Your task to perform on an android device: delete location history Image 0: 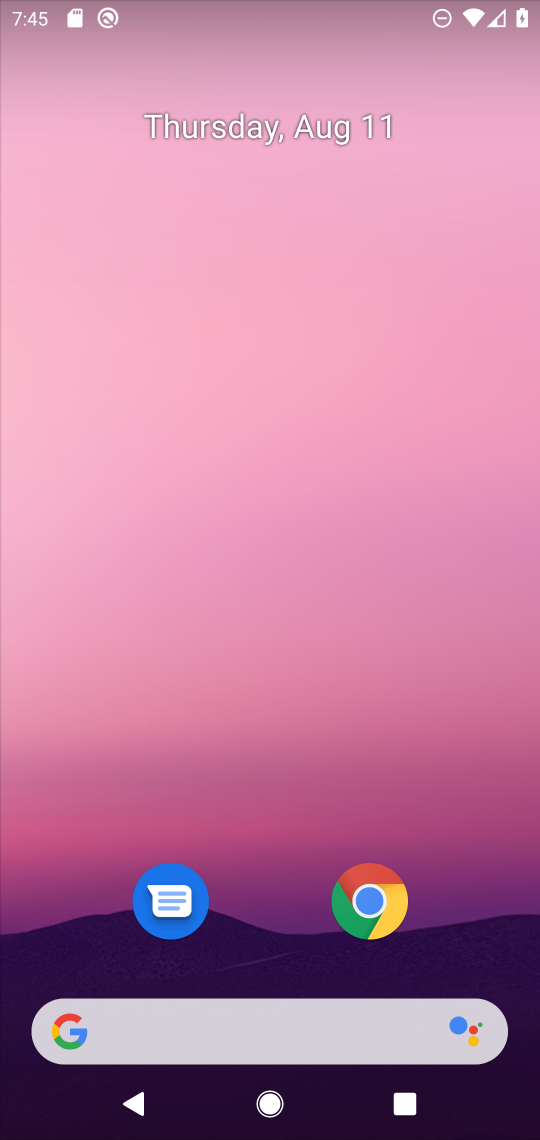
Step 0: drag from (267, 909) to (258, 101)
Your task to perform on an android device: delete location history Image 1: 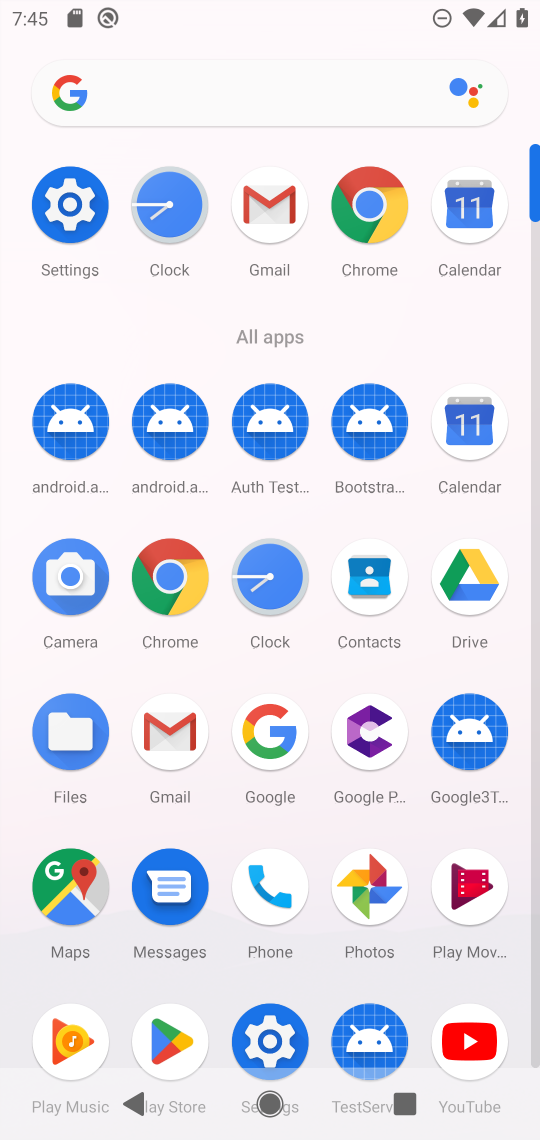
Step 1: click (80, 880)
Your task to perform on an android device: delete location history Image 2: 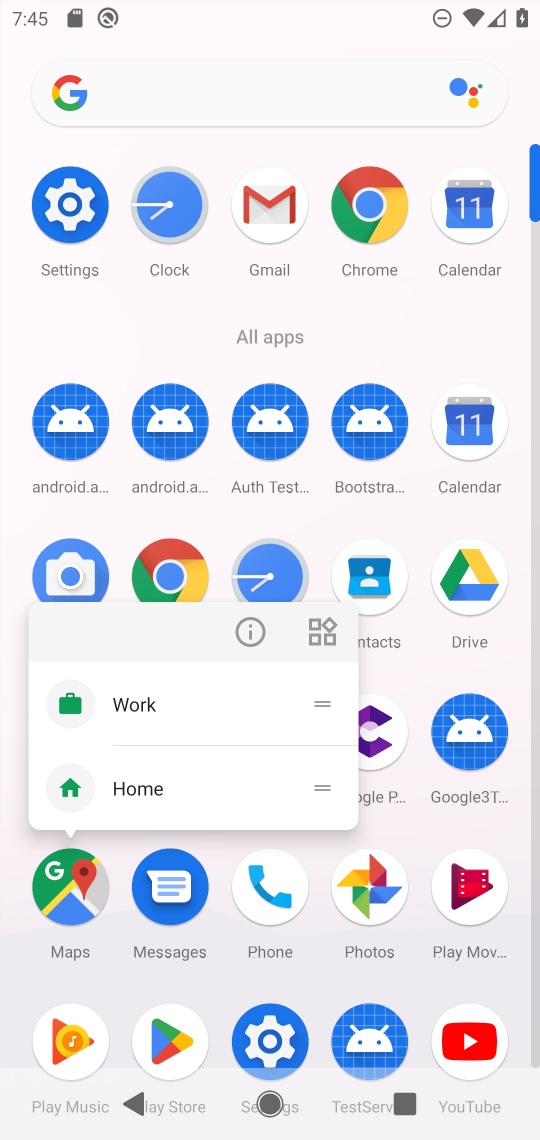
Step 2: click (80, 880)
Your task to perform on an android device: delete location history Image 3: 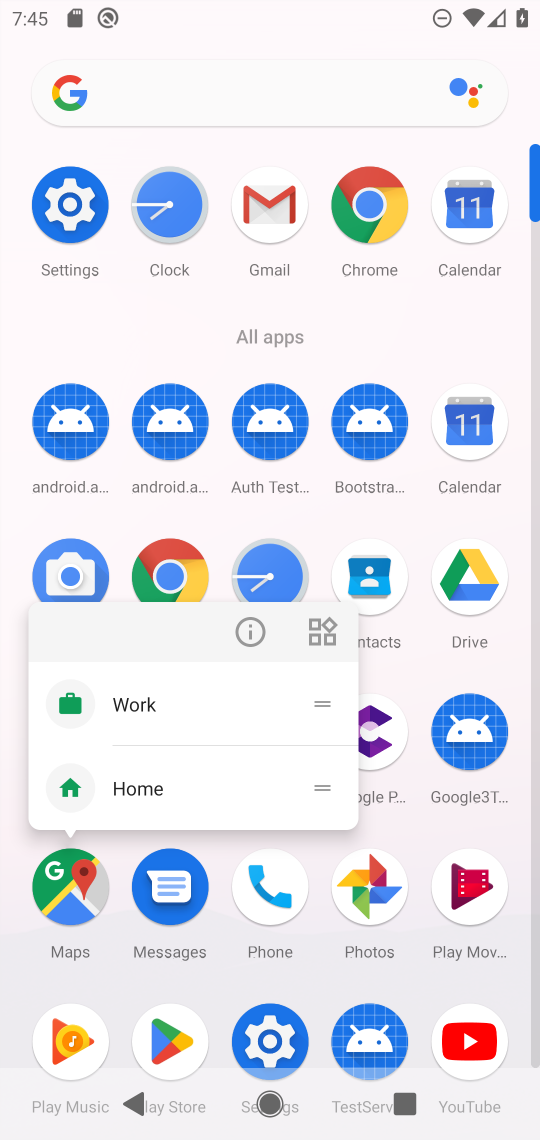
Step 3: click (56, 890)
Your task to perform on an android device: delete location history Image 4: 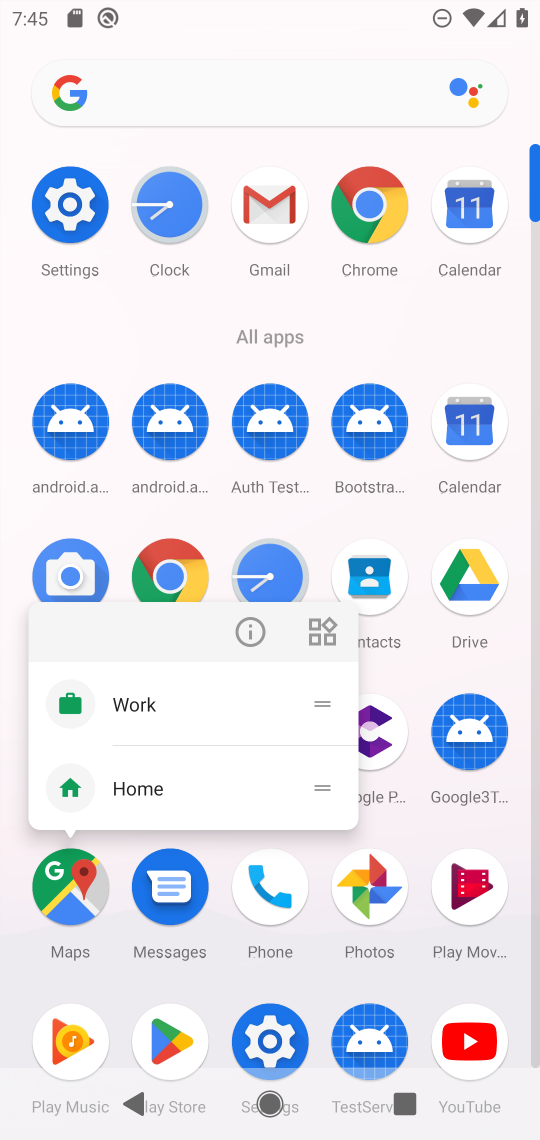
Step 4: click (56, 890)
Your task to perform on an android device: delete location history Image 5: 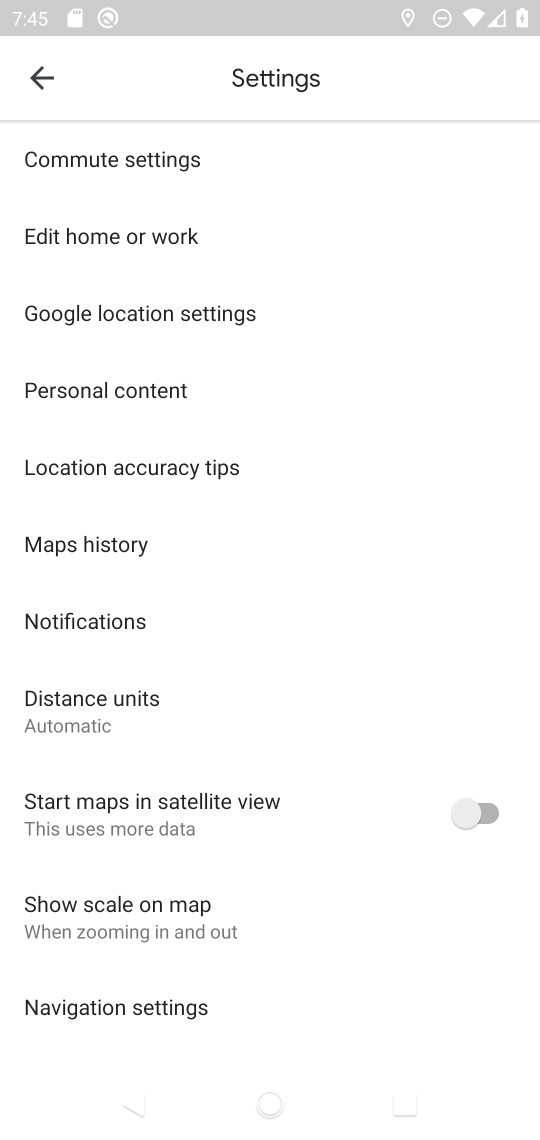
Step 5: click (82, 538)
Your task to perform on an android device: delete location history Image 6: 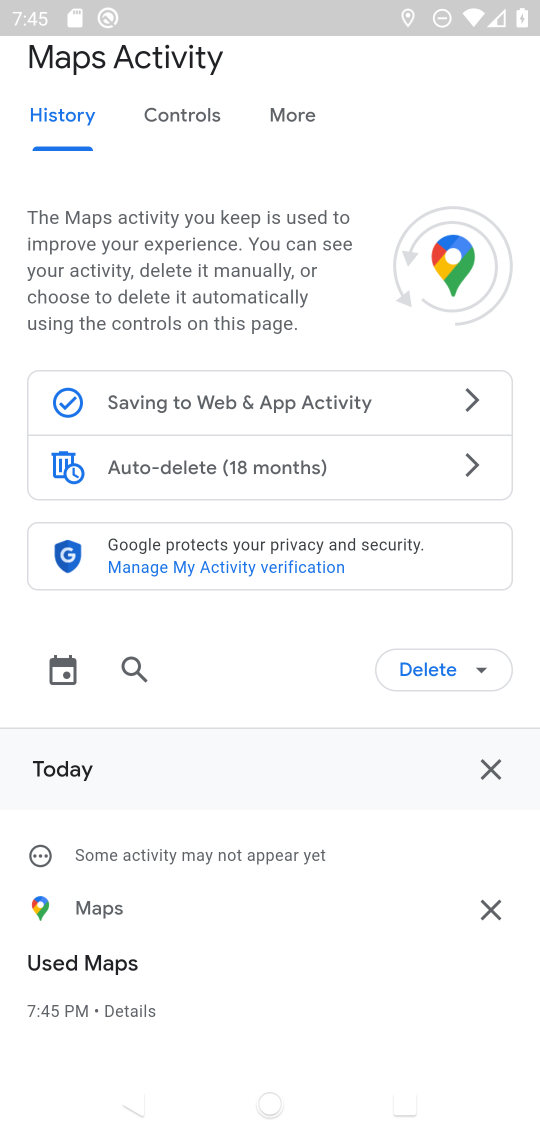
Step 6: click (483, 672)
Your task to perform on an android device: delete location history Image 7: 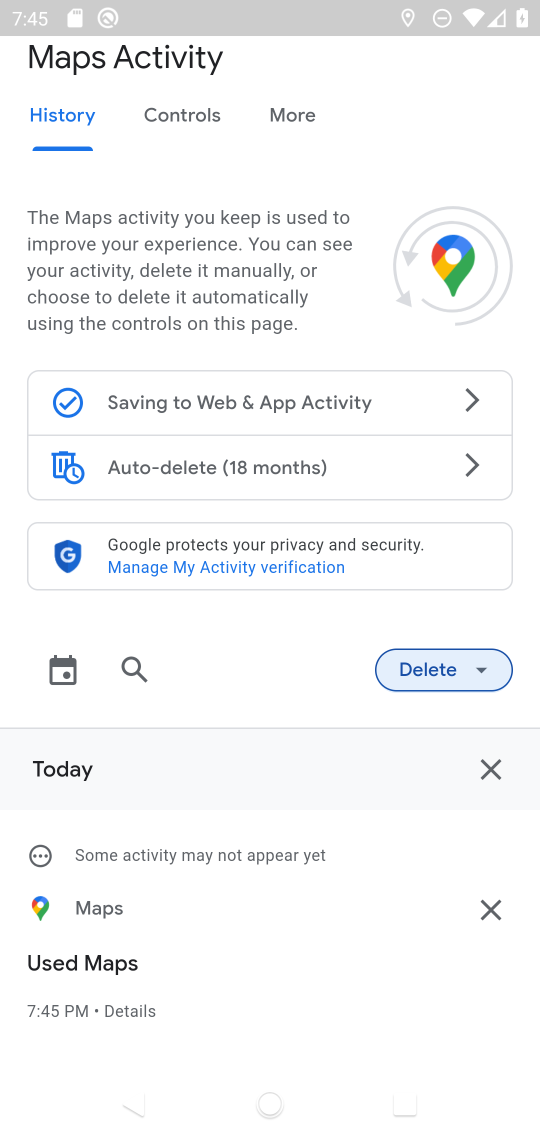
Step 7: click (483, 672)
Your task to perform on an android device: delete location history Image 8: 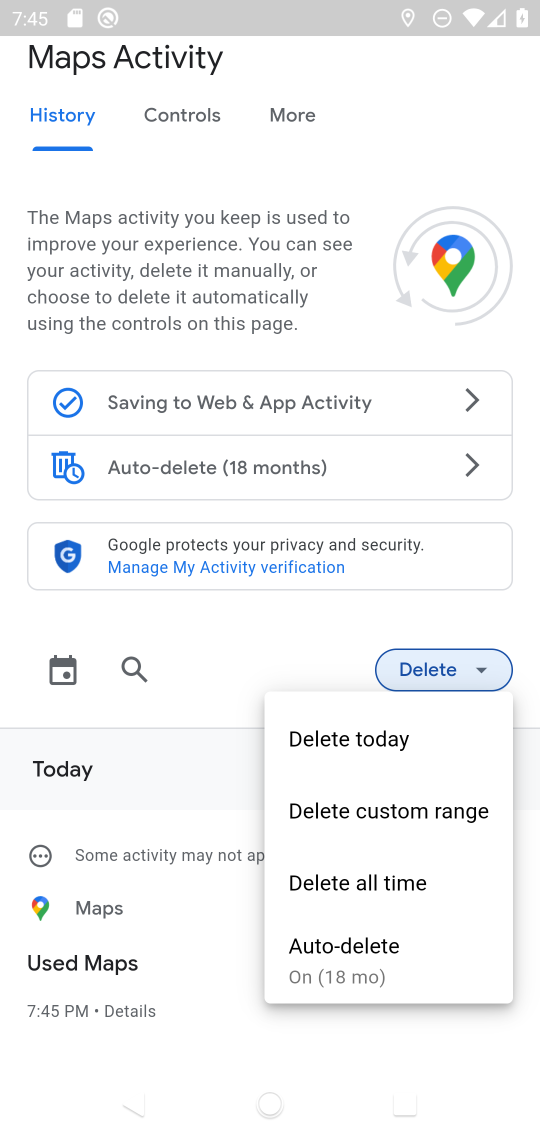
Step 8: click (483, 672)
Your task to perform on an android device: delete location history Image 9: 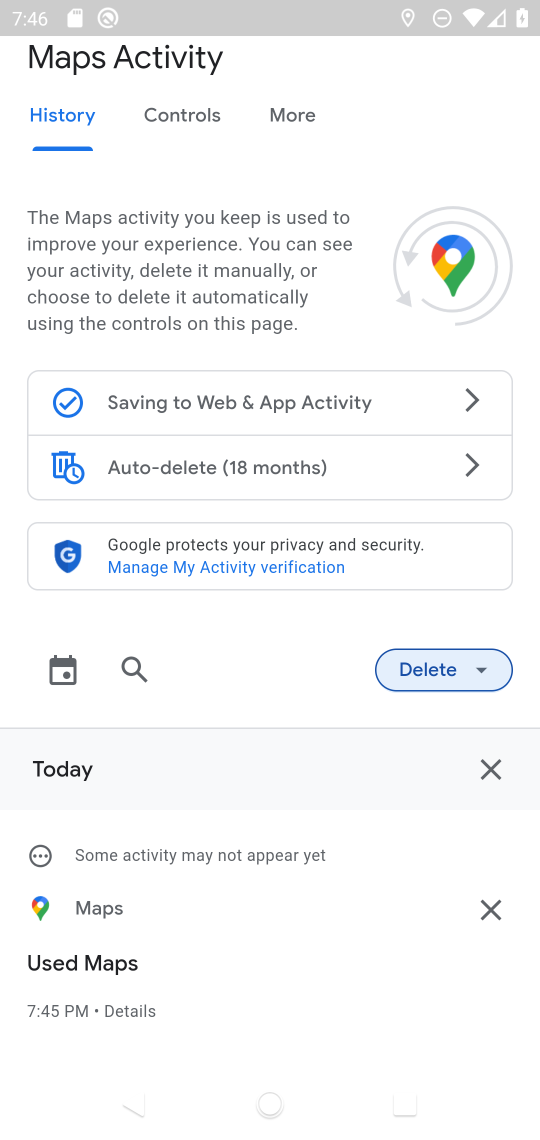
Step 9: click (486, 672)
Your task to perform on an android device: delete location history Image 10: 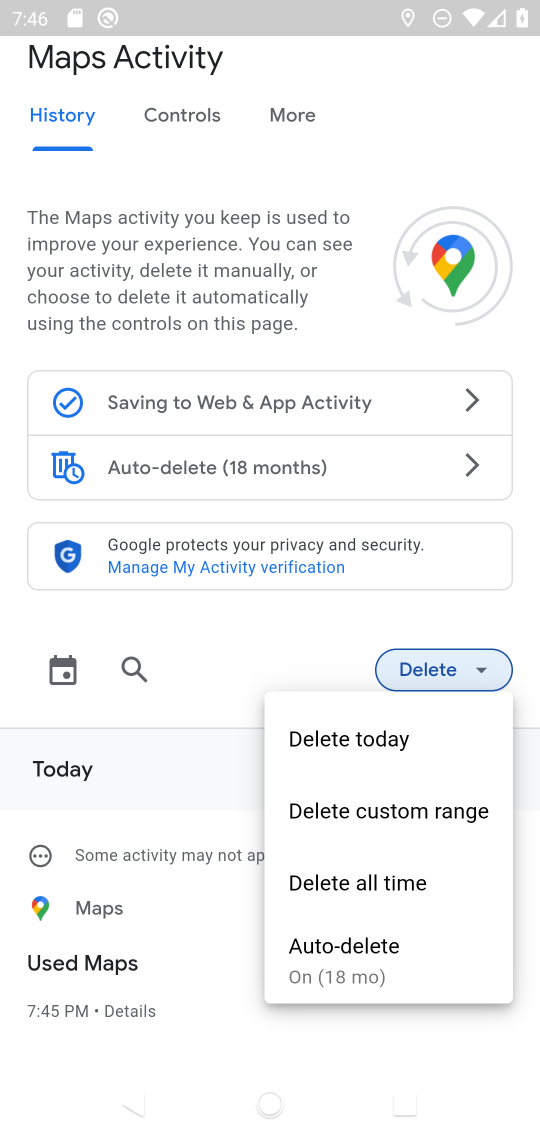
Step 10: click (357, 871)
Your task to perform on an android device: delete location history Image 11: 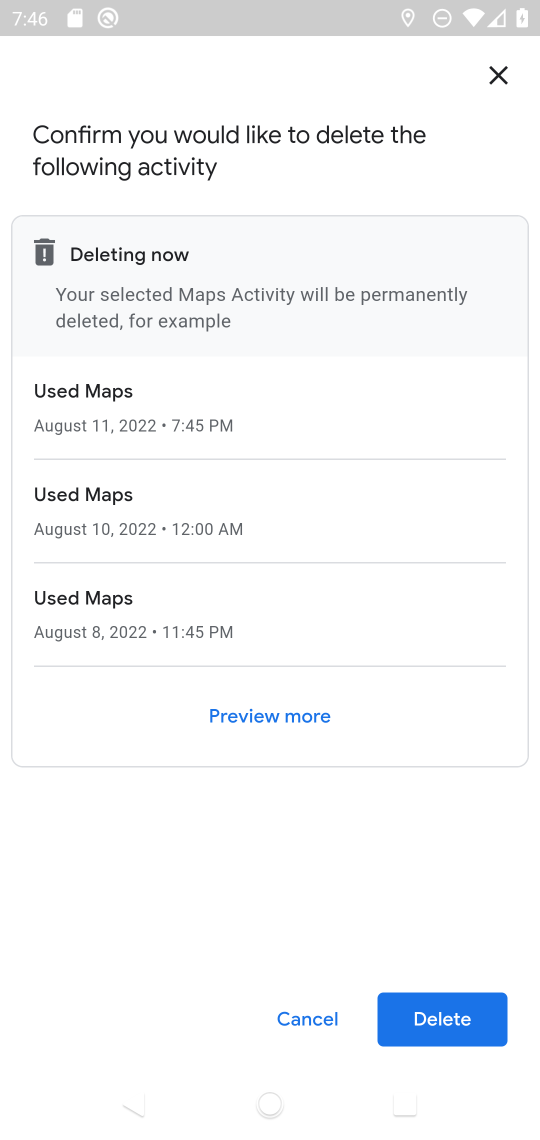
Step 11: click (436, 1019)
Your task to perform on an android device: delete location history Image 12: 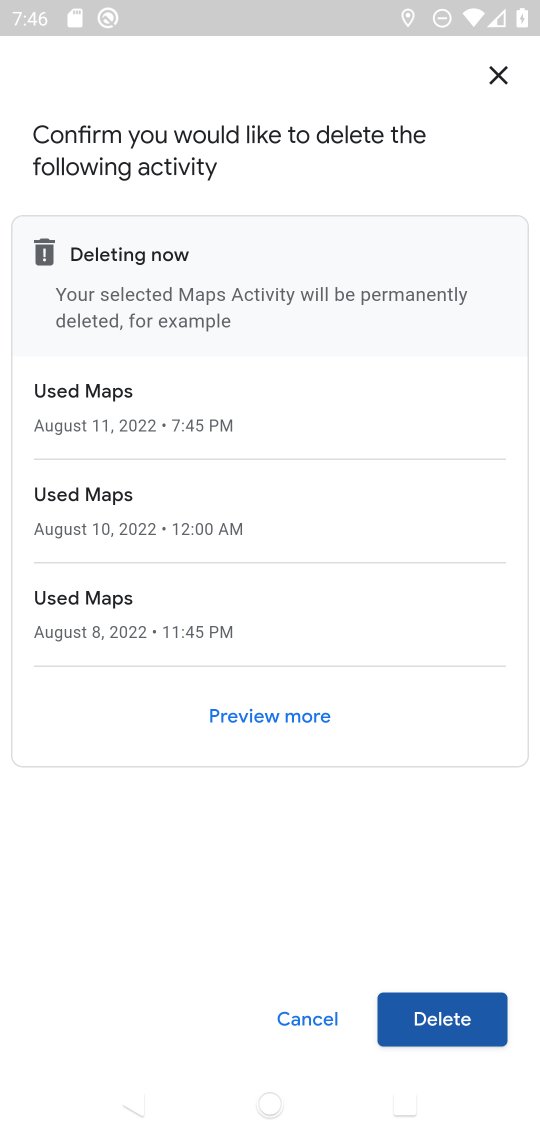
Step 12: click (436, 1019)
Your task to perform on an android device: delete location history Image 13: 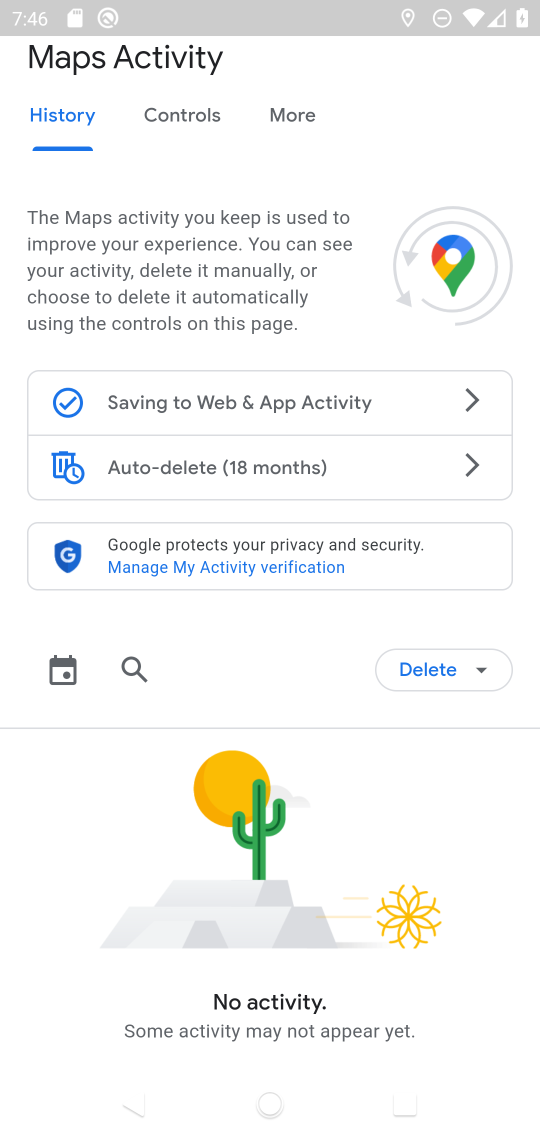
Step 13: task complete